Your task to perform on an android device: toggle notifications settings in the gmail app Image 0: 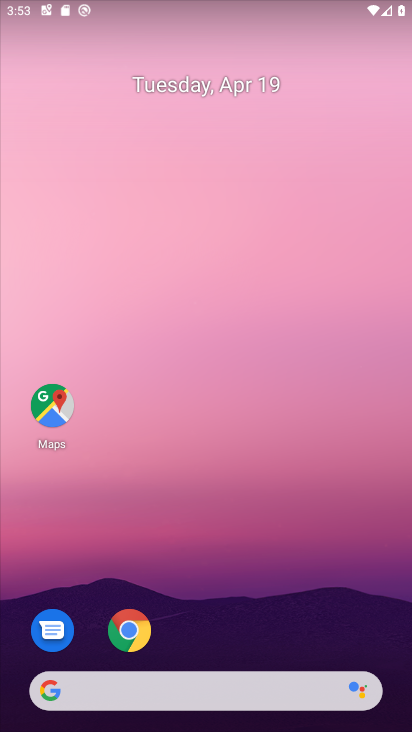
Step 0: drag from (199, 604) to (252, 144)
Your task to perform on an android device: toggle notifications settings in the gmail app Image 1: 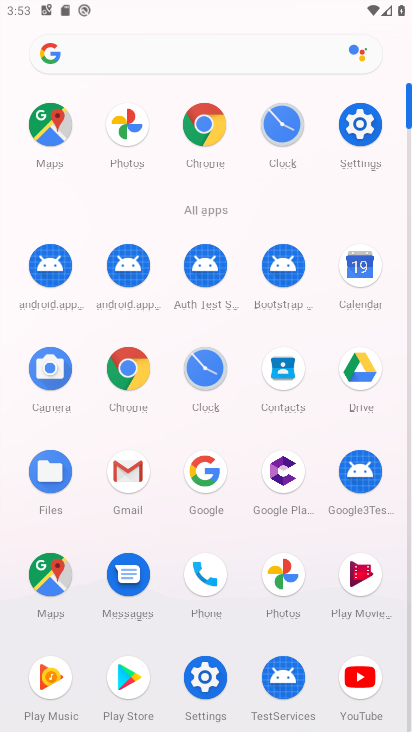
Step 1: click (115, 470)
Your task to perform on an android device: toggle notifications settings in the gmail app Image 2: 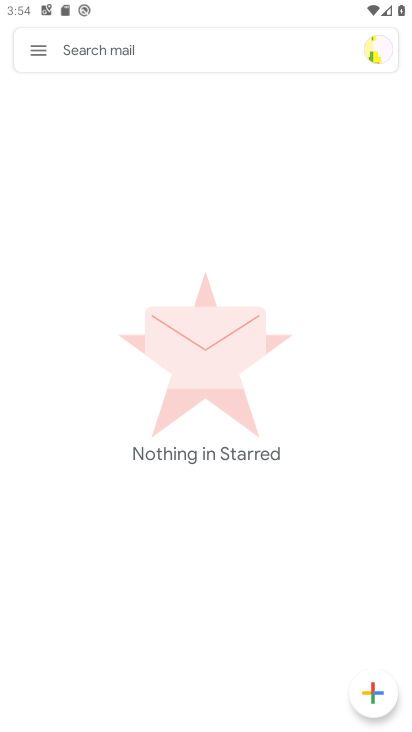
Step 2: click (38, 42)
Your task to perform on an android device: toggle notifications settings in the gmail app Image 3: 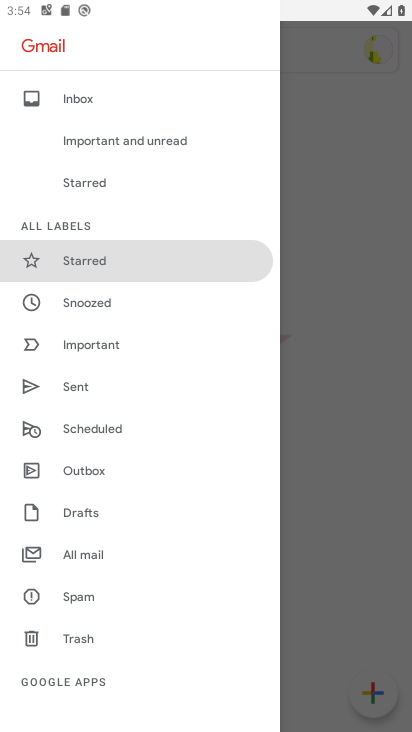
Step 3: drag from (119, 606) to (125, 200)
Your task to perform on an android device: toggle notifications settings in the gmail app Image 4: 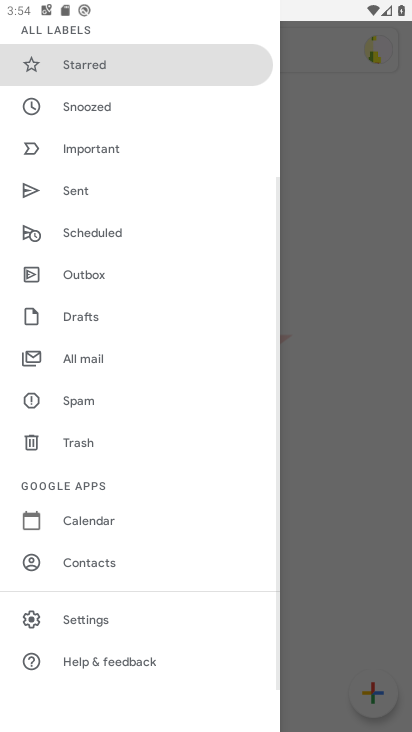
Step 4: click (82, 621)
Your task to perform on an android device: toggle notifications settings in the gmail app Image 5: 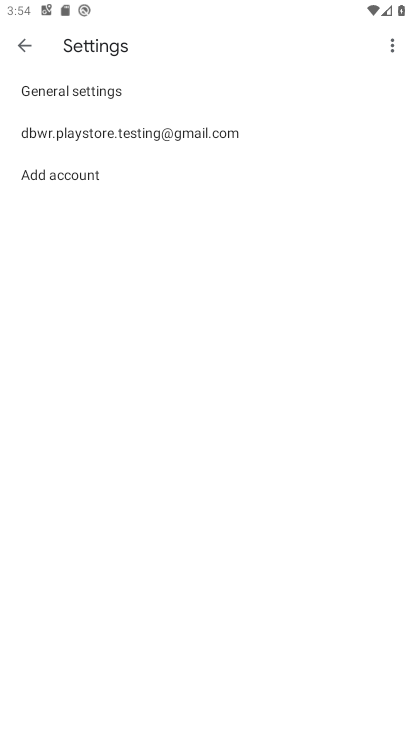
Step 5: click (197, 129)
Your task to perform on an android device: toggle notifications settings in the gmail app Image 6: 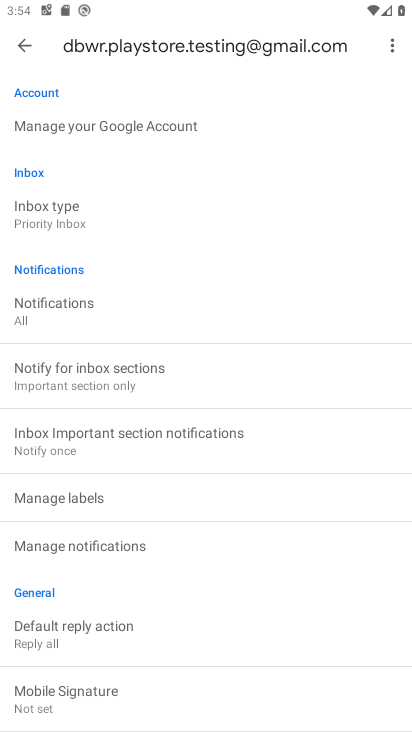
Step 6: click (109, 319)
Your task to perform on an android device: toggle notifications settings in the gmail app Image 7: 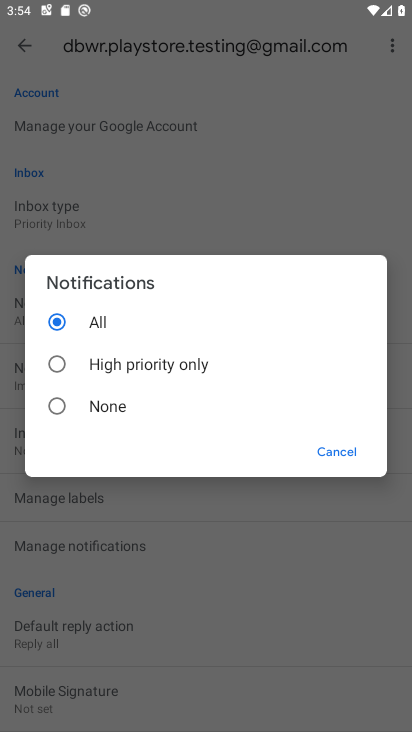
Step 7: click (141, 381)
Your task to perform on an android device: toggle notifications settings in the gmail app Image 8: 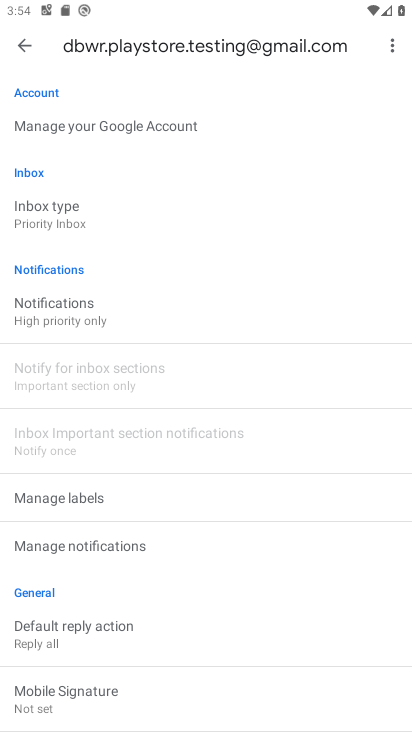
Step 8: task complete